Your task to perform on an android device: Go to privacy settings Image 0: 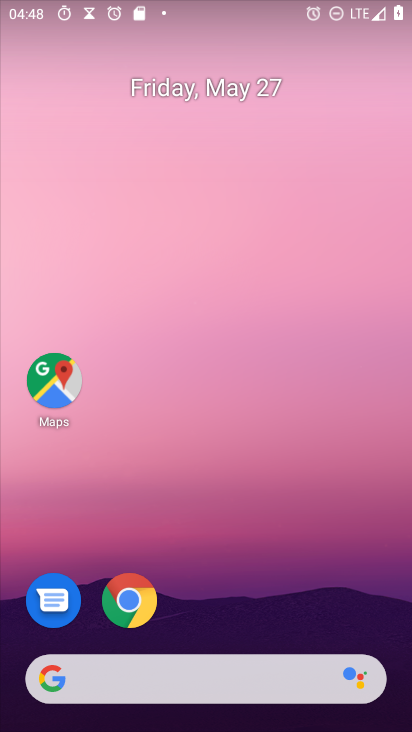
Step 0: drag from (232, 721) to (228, 82)
Your task to perform on an android device: Go to privacy settings Image 1: 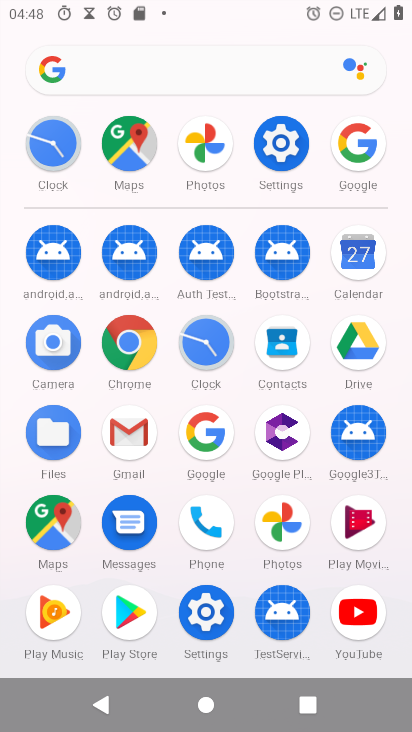
Step 1: click (286, 130)
Your task to perform on an android device: Go to privacy settings Image 2: 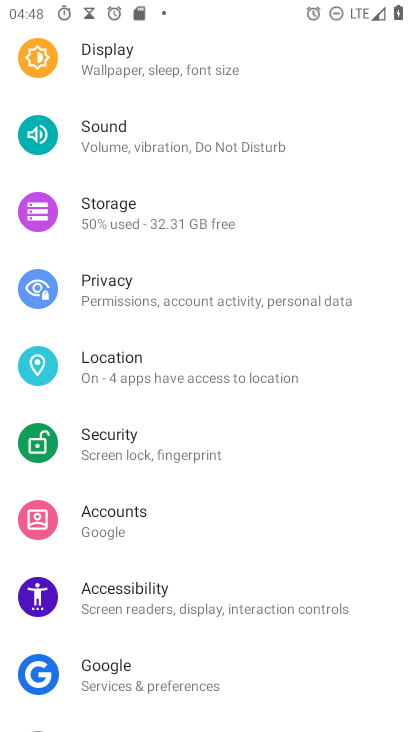
Step 2: click (117, 290)
Your task to perform on an android device: Go to privacy settings Image 3: 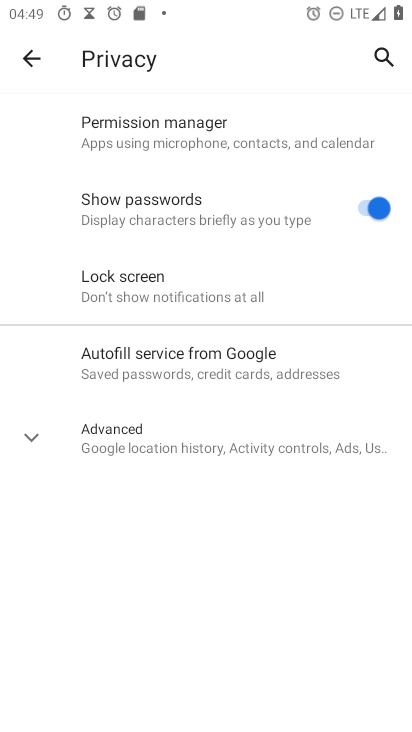
Step 3: task complete